Your task to perform on an android device: Open eBay Image 0: 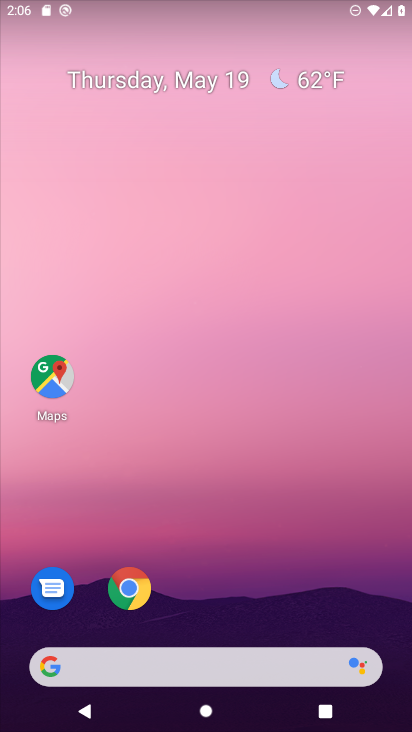
Step 0: click (138, 585)
Your task to perform on an android device: Open eBay Image 1: 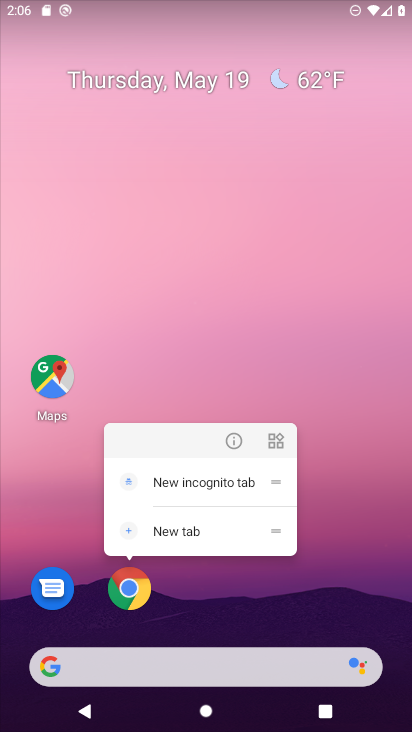
Step 1: click (138, 585)
Your task to perform on an android device: Open eBay Image 2: 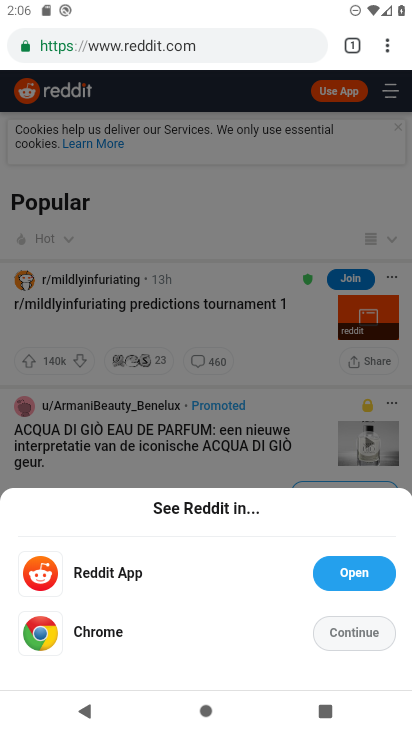
Step 2: click (108, 47)
Your task to perform on an android device: Open eBay Image 3: 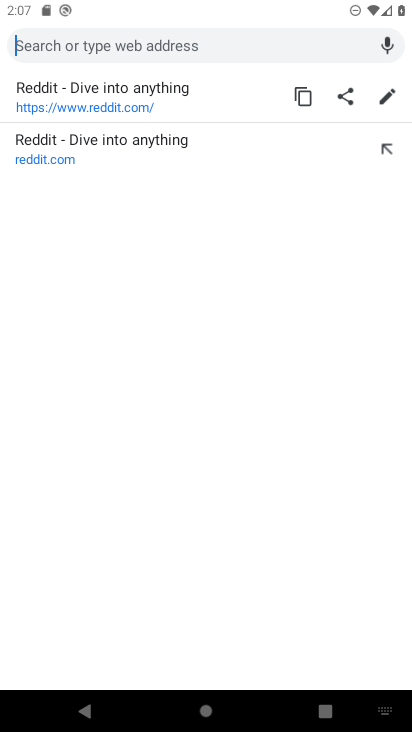
Step 3: type "ebay"
Your task to perform on an android device: Open eBay Image 4: 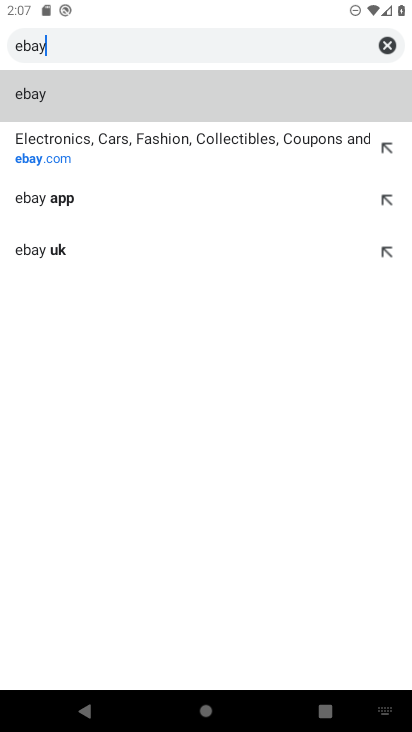
Step 4: click (37, 97)
Your task to perform on an android device: Open eBay Image 5: 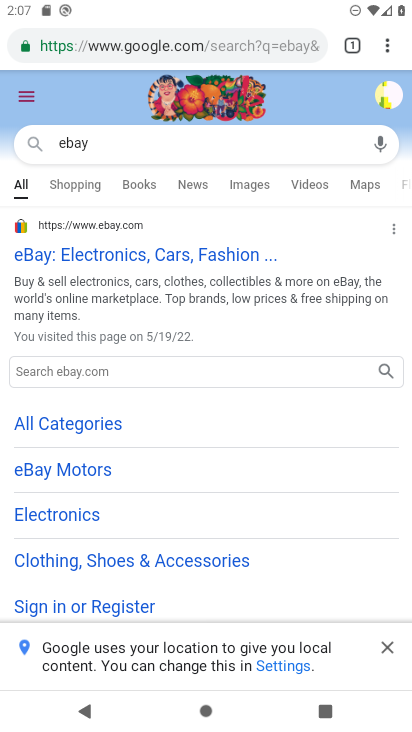
Step 5: click (39, 255)
Your task to perform on an android device: Open eBay Image 6: 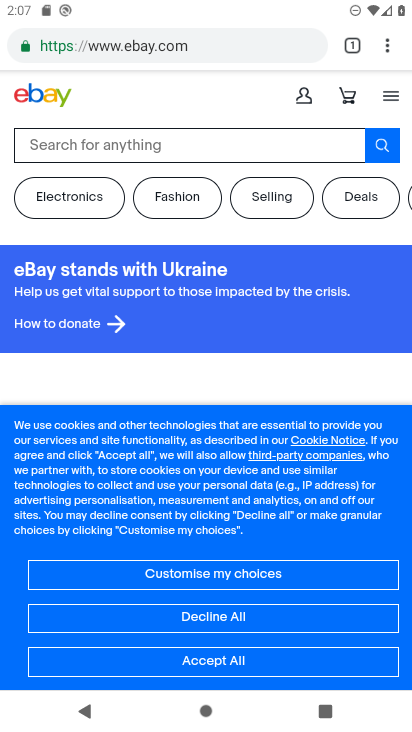
Step 6: task complete